Your task to perform on an android device: Open Google Chrome and open the bookmarks view Image 0: 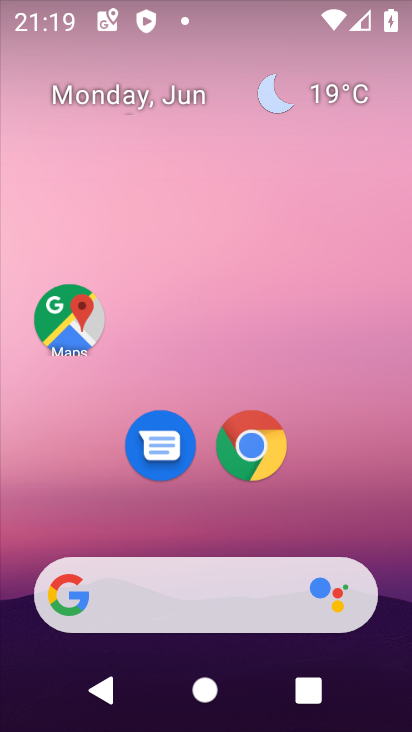
Step 0: click (249, 438)
Your task to perform on an android device: Open Google Chrome and open the bookmarks view Image 1: 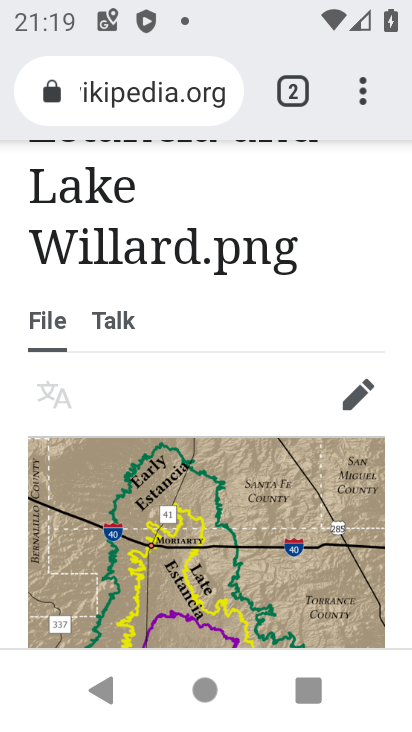
Step 1: click (367, 81)
Your task to perform on an android device: Open Google Chrome and open the bookmarks view Image 2: 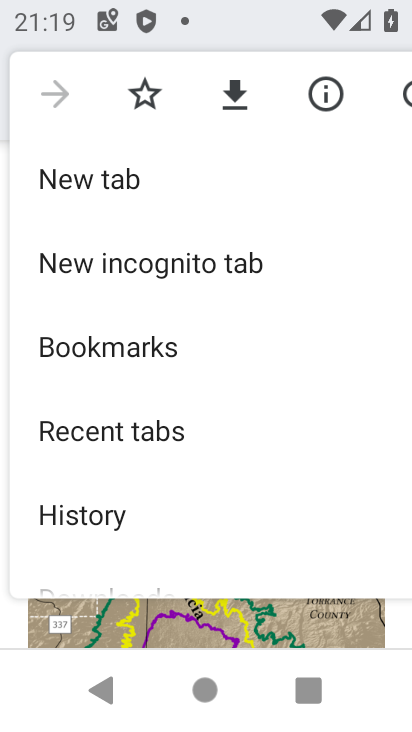
Step 2: click (146, 337)
Your task to perform on an android device: Open Google Chrome and open the bookmarks view Image 3: 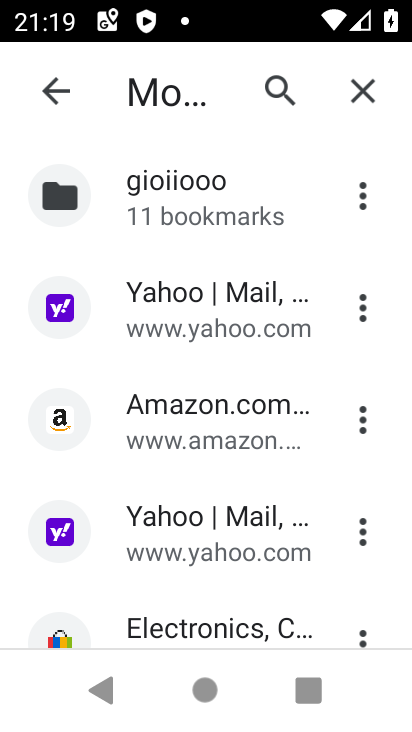
Step 3: task complete